Your task to perform on an android device: Go to ESPN.com Image 0: 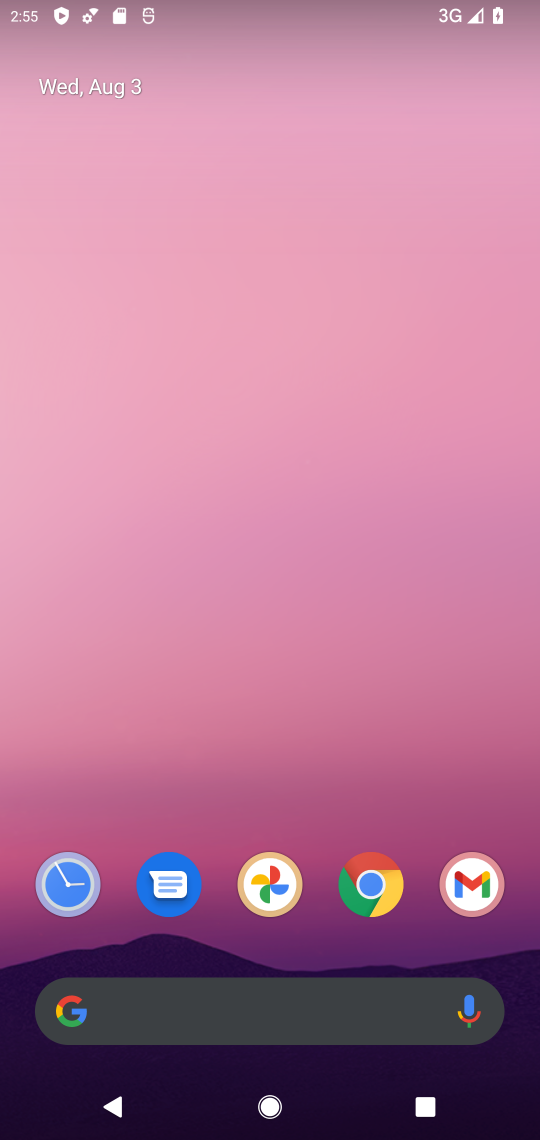
Step 0: click (362, 909)
Your task to perform on an android device: Go to ESPN.com Image 1: 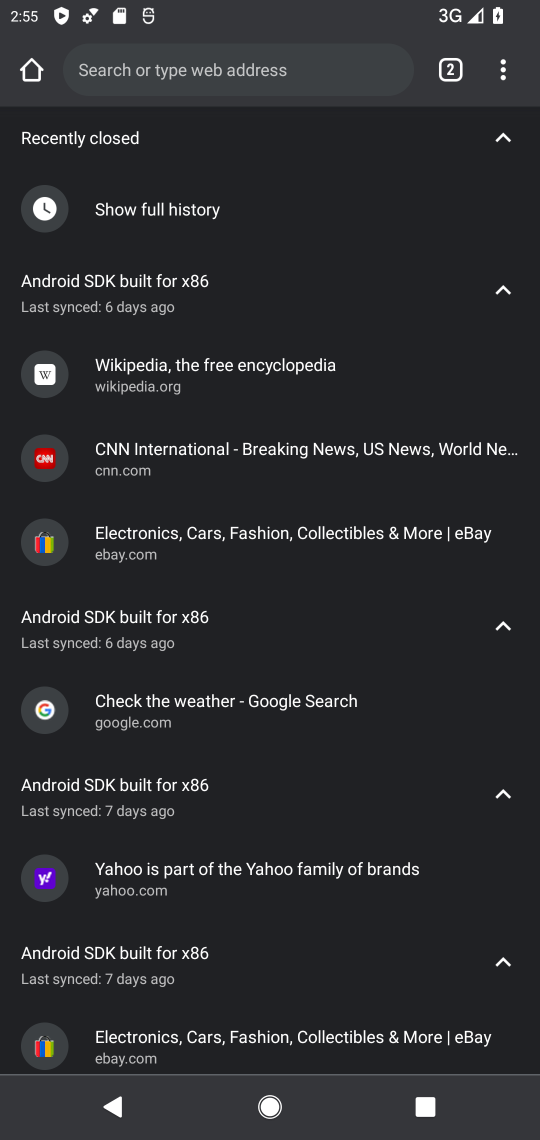
Step 1: click (234, 88)
Your task to perform on an android device: Go to ESPN.com Image 2: 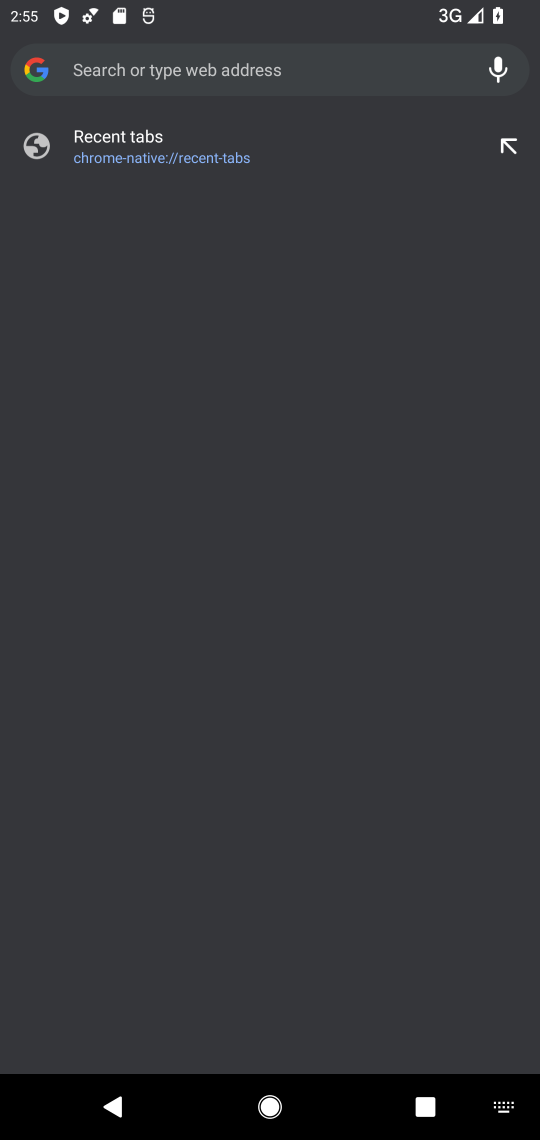
Step 2: type "espn"
Your task to perform on an android device: Go to ESPN.com Image 3: 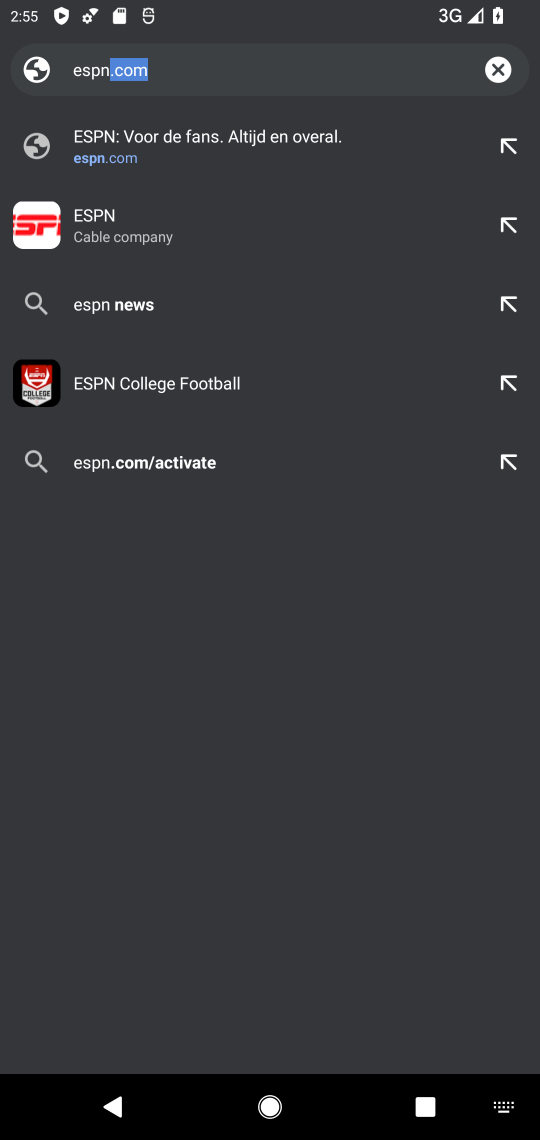
Step 3: click (201, 232)
Your task to perform on an android device: Go to ESPN.com Image 4: 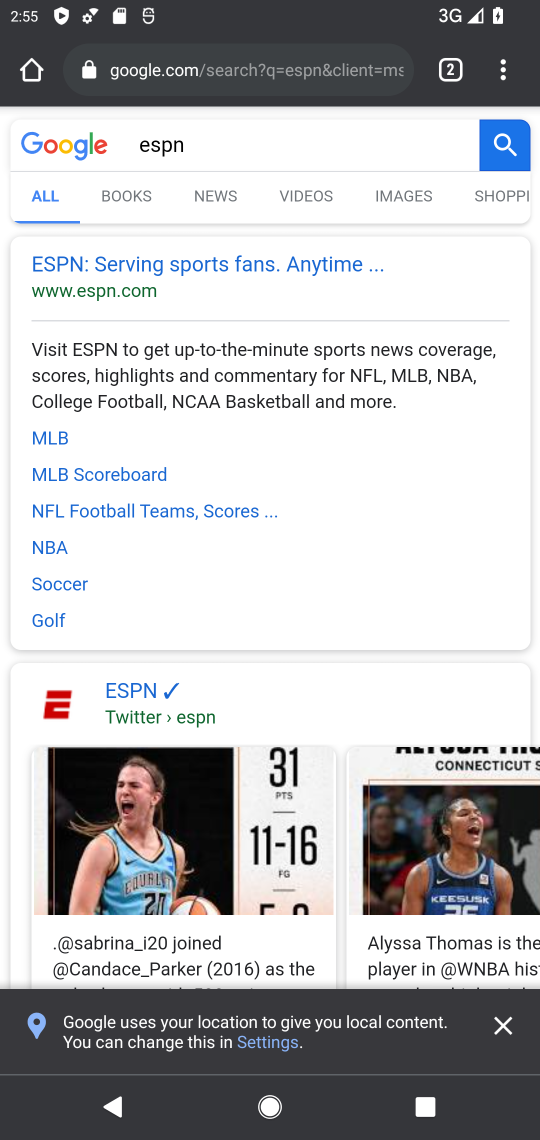
Step 4: click (150, 278)
Your task to perform on an android device: Go to ESPN.com Image 5: 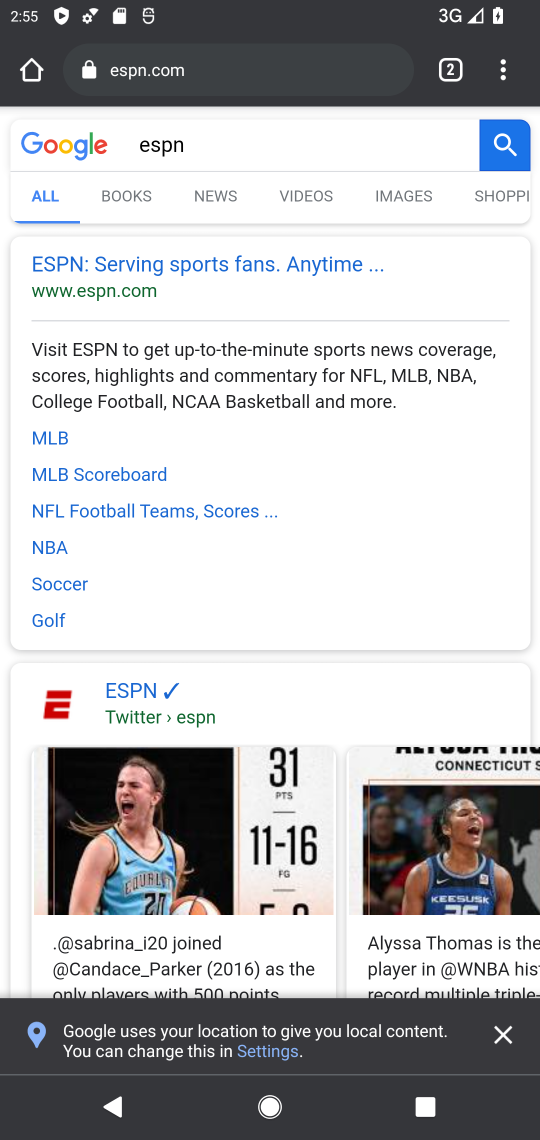
Step 5: task complete